Your task to perform on an android device: turn off translation in the chrome app Image 0: 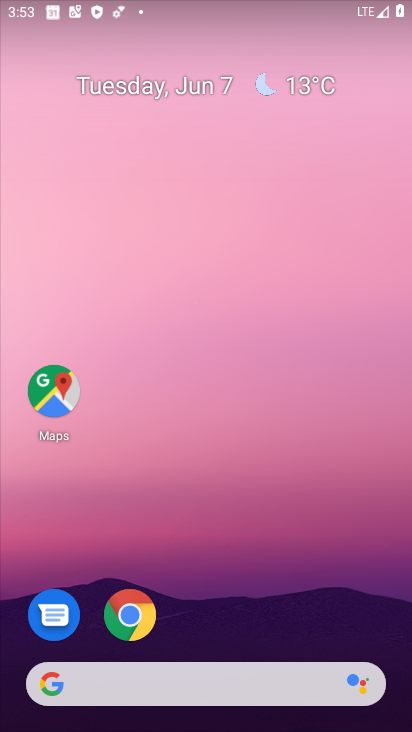
Step 0: click (134, 614)
Your task to perform on an android device: turn off translation in the chrome app Image 1: 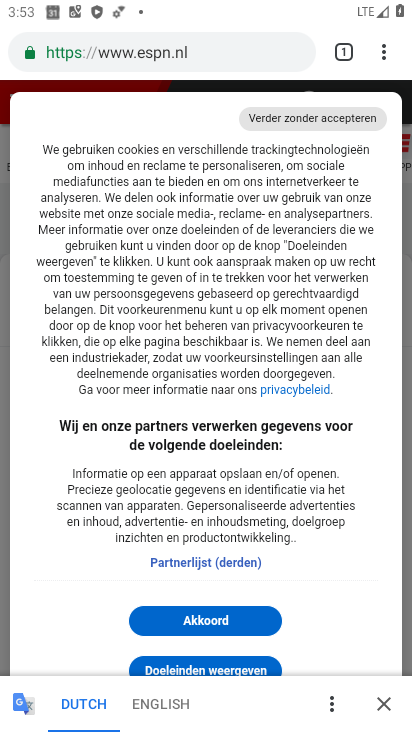
Step 1: click (384, 57)
Your task to perform on an android device: turn off translation in the chrome app Image 2: 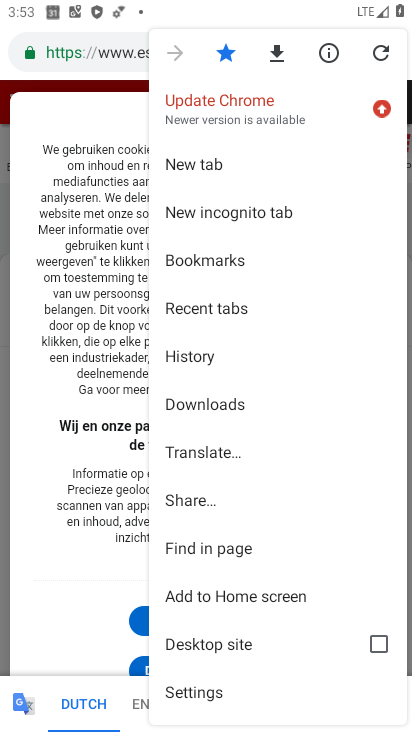
Step 2: click (196, 689)
Your task to perform on an android device: turn off translation in the chrome app Image 3: 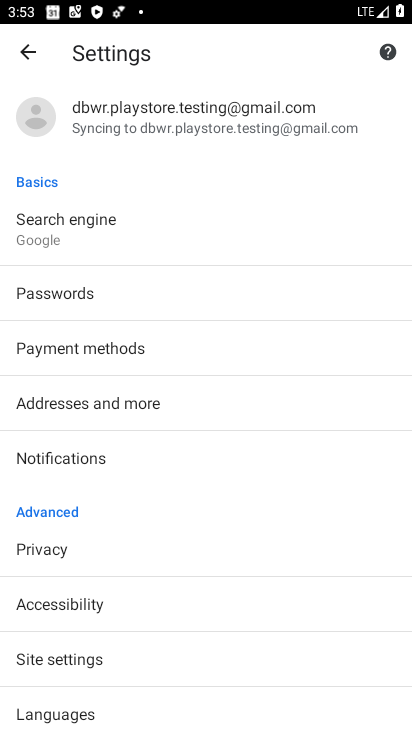
Step 3: click (71, 711)
Your task to perform on an android device: turn off translation in the chrome app Image 4: 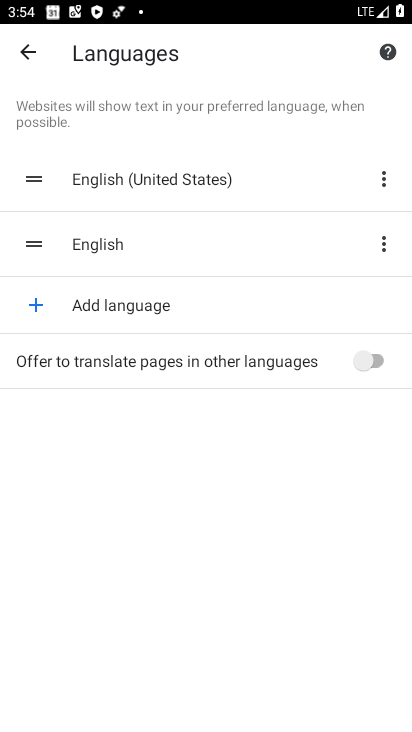
Step 4: task complete